Your task to perform on an android device: What's on my calendar tomorrow? Image 0: 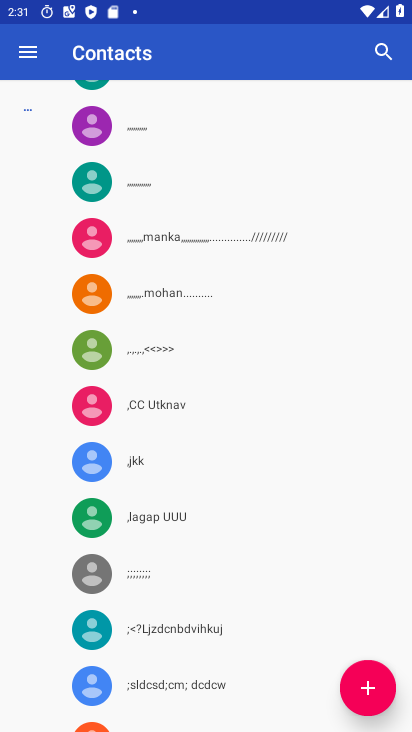
Step 0: press home button
Your task to perform on an android device: What's on my calendar tomorrow? Image 1: 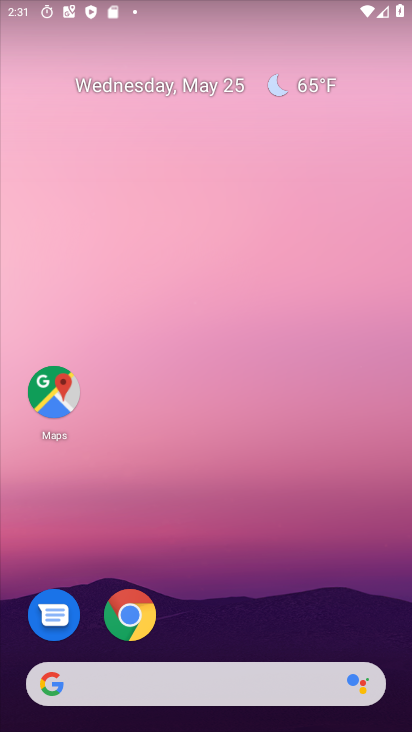
Step 1: drag from (390, 684) to (353, 392)
Your task to perform on an android device: What's on my calendar tomorrow? Image 2: 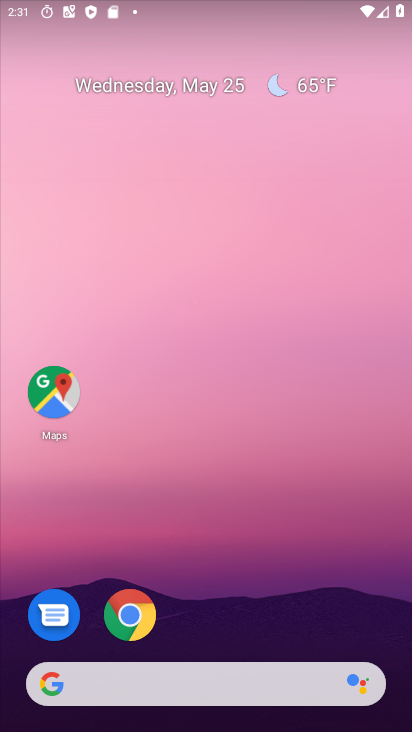
Step 2: drag from (394, 656) to (354, 267)
Your task to perform on an android device: What's on my calendar tomorrow? Image 3: 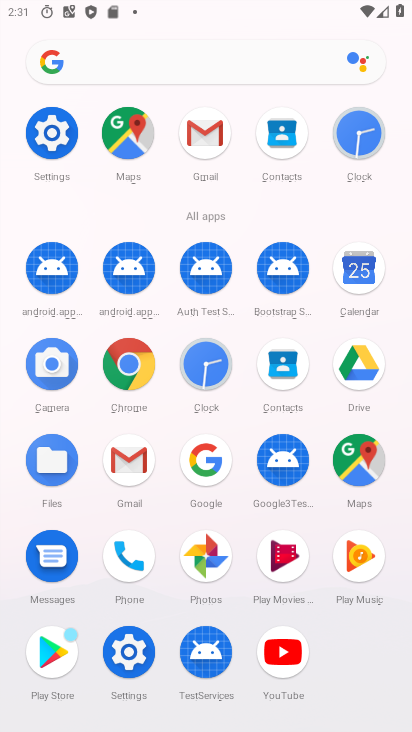
Step 3: click (352, 268)
Your task to perform on an android device: What's on my calendar tomorrow? Image 4: 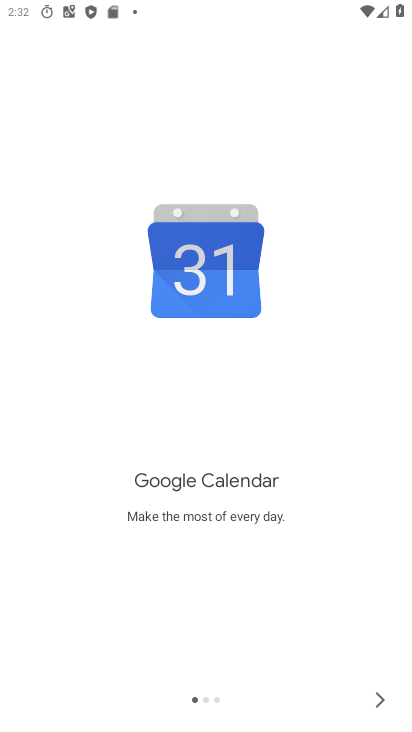
Step 4: click (381, 700)
Your task to perform on an android device: What's on my calendar tomorrow? Image 5: 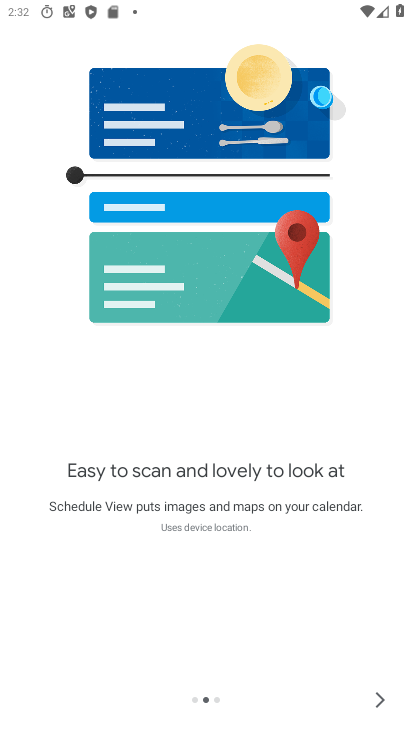
Step 5: click (385, 694)
Your task to perform on an android device: What's on my calendar tomorrow? Image 6: 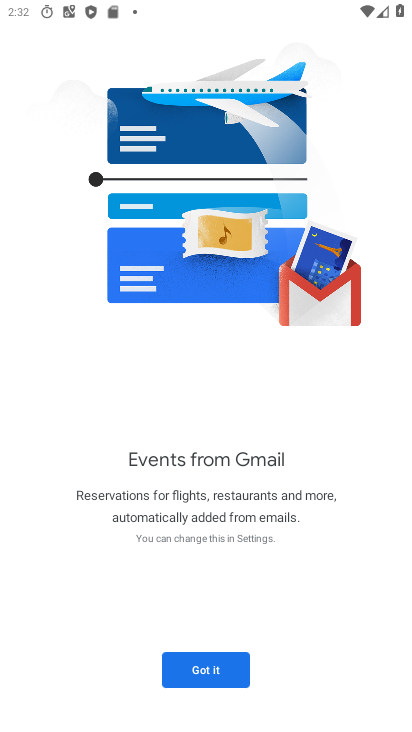
Step 6: click (198, 676)
Your task to perform on an android device: What's on my calendar tomorrow? Image 7: 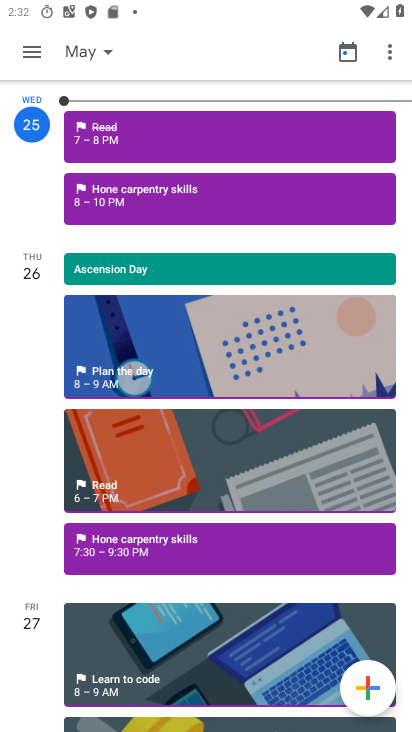
Step 7: click (107, 54)
Your task to perform on an android device: What's on my calendar tomorrow? Image 8: 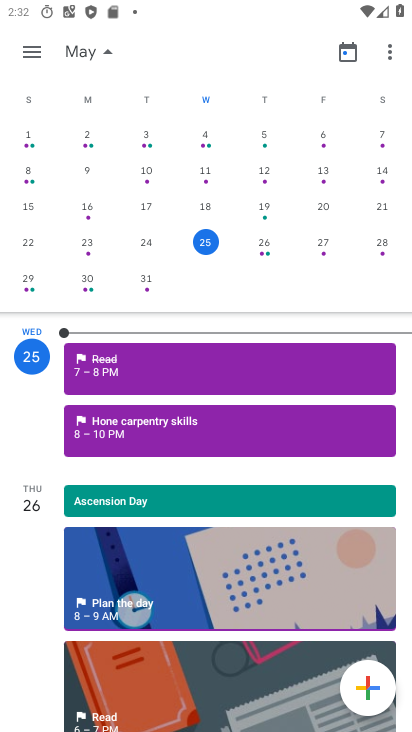
Step 8: click (264, 241)
Your task to perform on an android device: What's on my calendar tomorrow? Image 9: 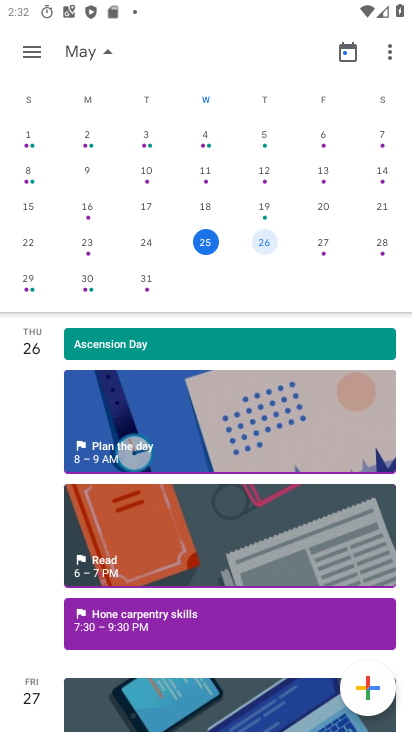
Step 9: click (28, 55)
Your task to perform on an android device: What's on my calendar tomorrow? Image 10: 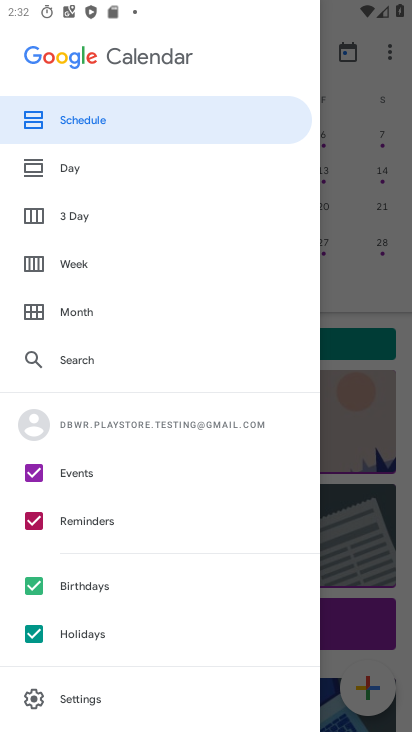
Step 10: click (64, 171)
Your task to perform on an android device: What's on my calendar tomorrow? Image 11: 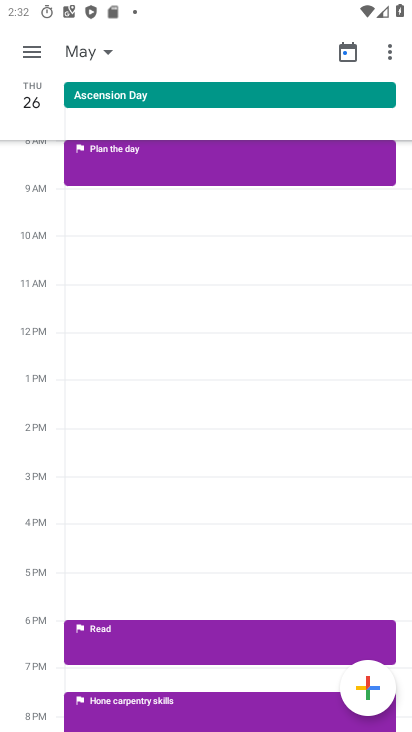
Step 11: task complete